Your task to perform on an android device: turn on data saver in the chrome app Image 0: 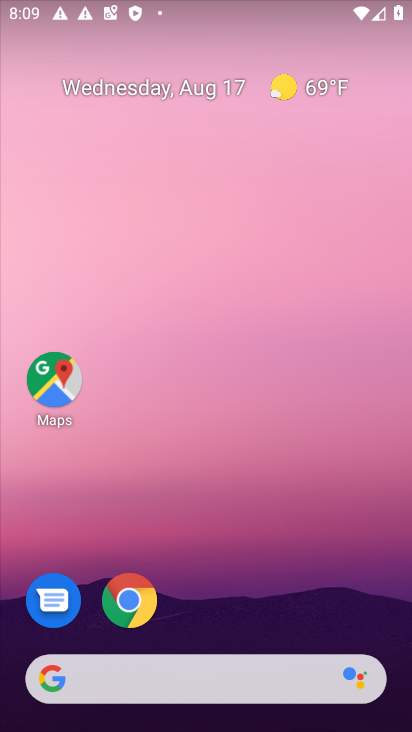
Step 0: press home button
Your task to perform on an android device: turn on data saver in the chrome app Image 1: 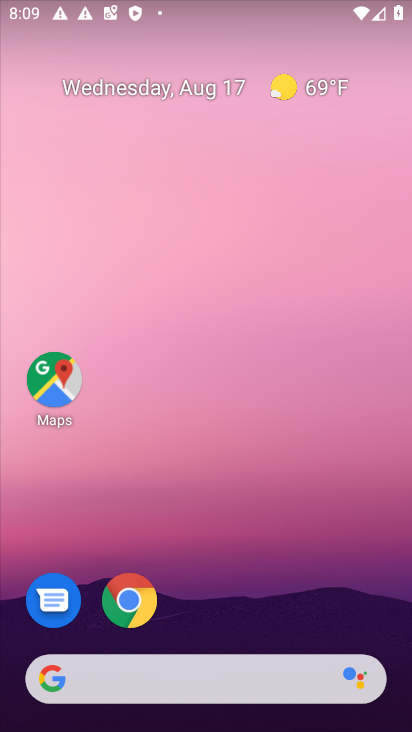
Step 1: click (121, 604)
Your task to perform on an android device: turn on data saver in the chrome app Image 2: 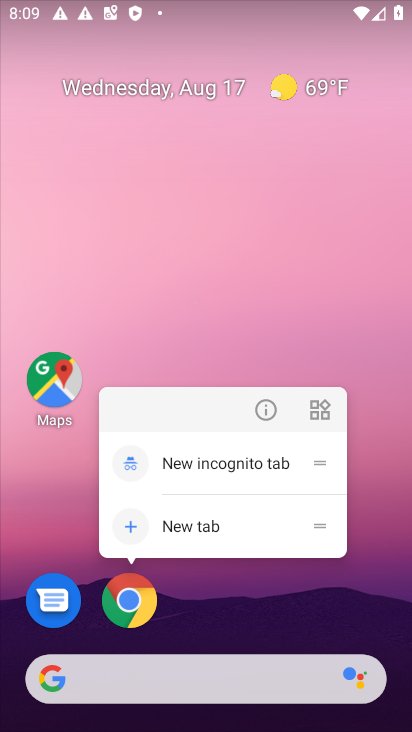
Step 2: click (126, 617)
Your task to perform on an android device: turn on data saver in the chrome app Image 3: 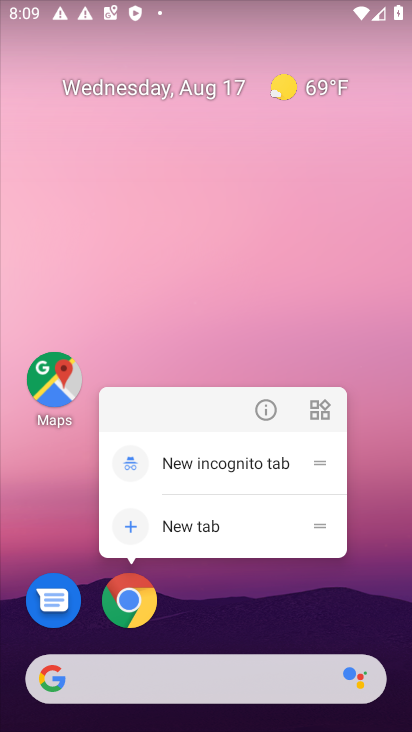
Step 3: click (126, 617)
Your task to perform on an android device: turn on data saver in the chrome app Image 4: 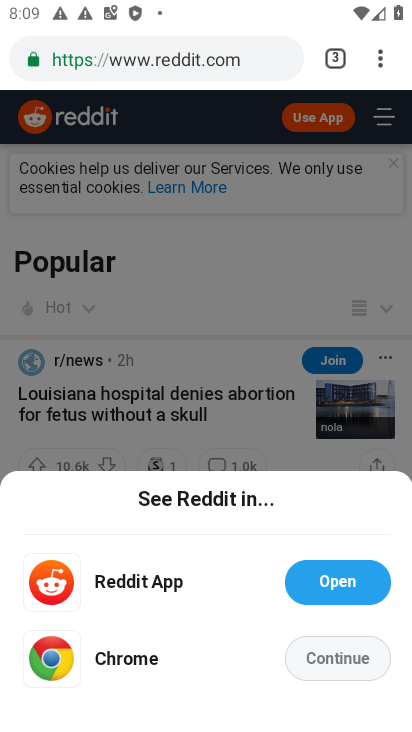
Step 4: drag from (375, 57) to (208, 627)
Your task to perform on an android device: turn on data saver in the chrome app Image 5: 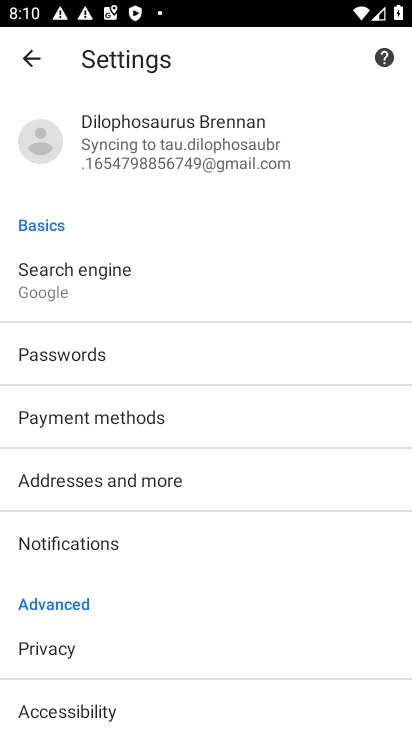
Step 5: drag from (157, 598) to (179, 137)
Your task to perform on an android device: turn on data saver in the chrome app Image 6: 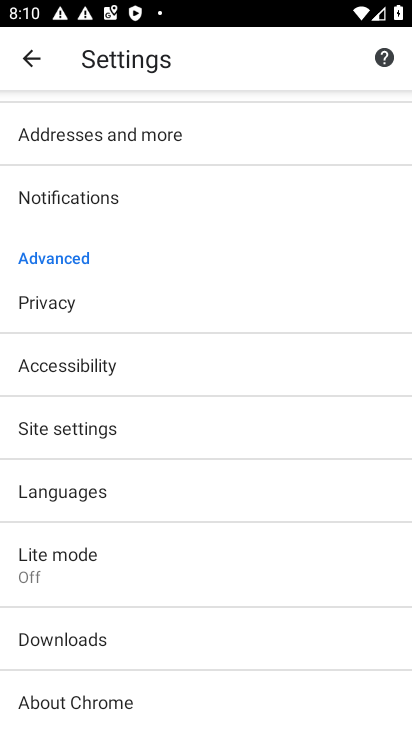
Step 6: click (86, 576)
Your task to perform on an android device: turn on data saver in the chrome app Image 7: 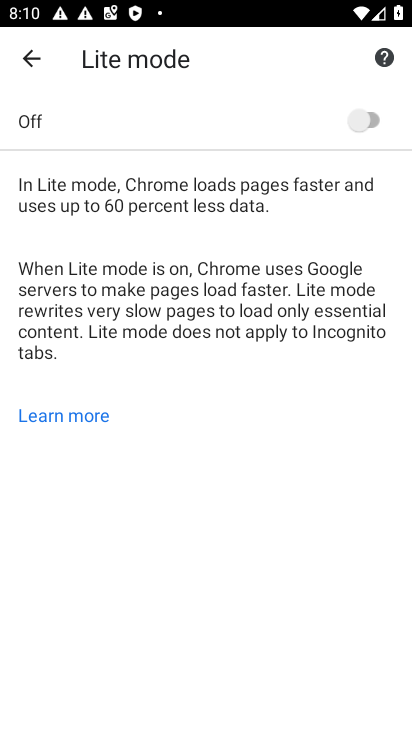
Step 7: click (380, 124)
Your task to perform on an android device: turn on data saver in the chrome app Image 8: 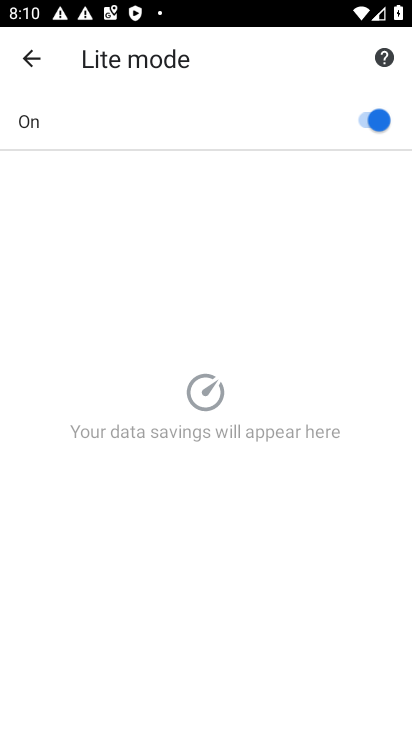
Step 8: task complete